Your task to perform on an android device: turn off notifications settings in the gmail app Image 0: 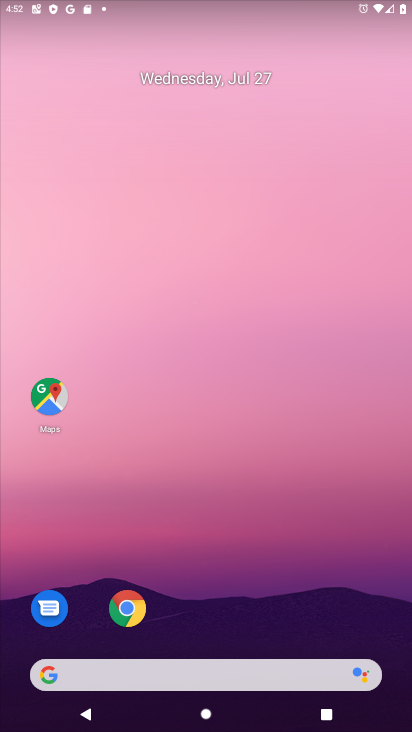
Step 0: drag from (200, 625) to (122, 89)
Your task to perform on an android device: turn off notifications settings in the gmail app Image 1: 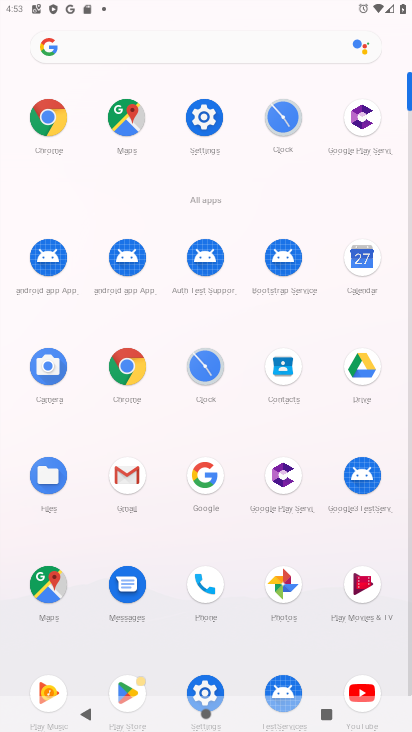
Step 1: click (125, 467)
Your task to perform on an android device: turn off notifications settings in the gmail app Image 2: 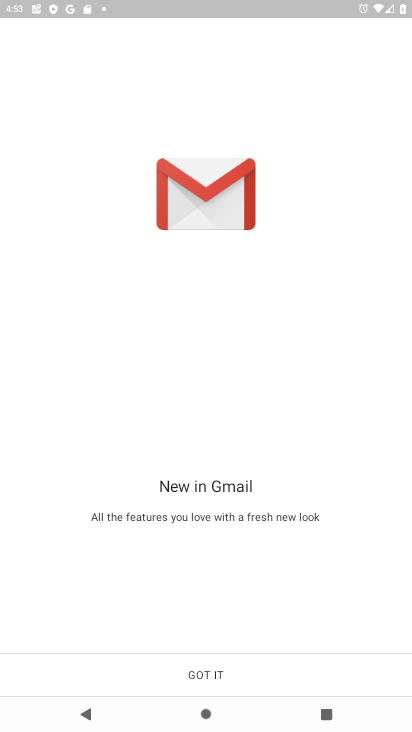
Step 2: click (154, 660)
Your task to perform on an android device: turn off notifications settings in the gmail app Image 3: 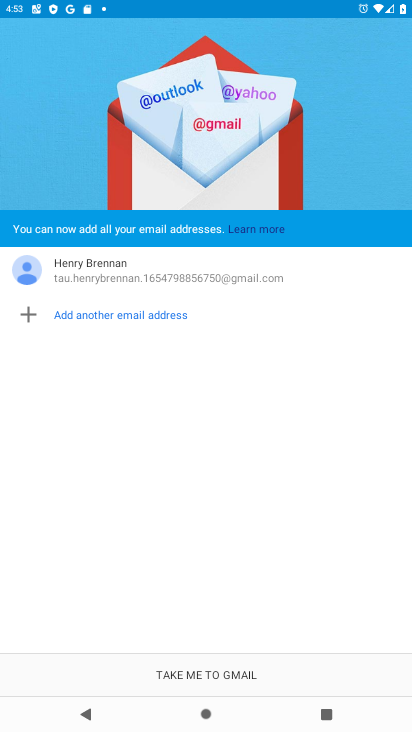
Step 3: click (197, 655)
Your task to perform on an android device: turn off notifications settings in the gmail app Image 4: 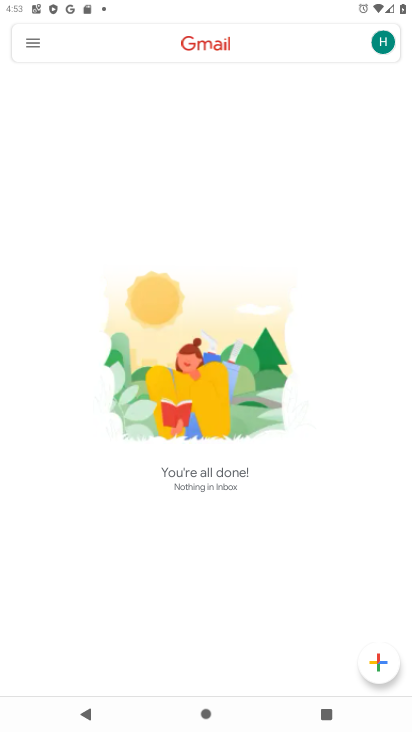
Step 4: click (38, 50)
Your task to perform on an android device: turn off notifications settings in the gmail app Image 5: 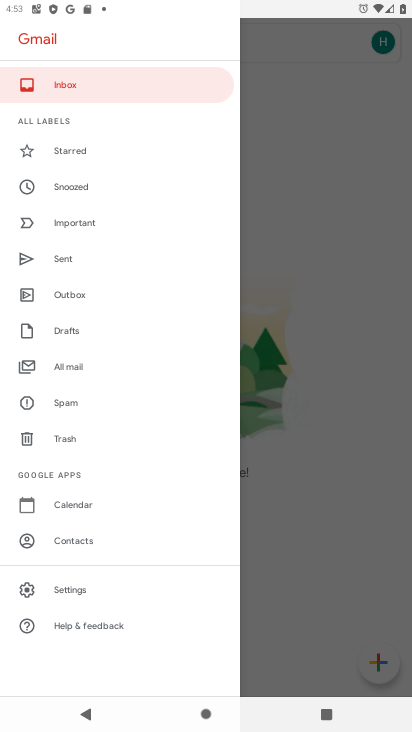
Step 5: click (65, 567)
Your task to perform on an android device: turn off notifications settings in the gmail app Image 6: 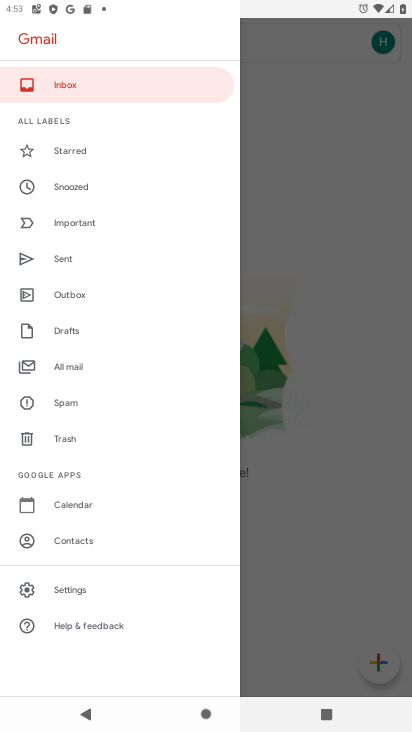
Step 6: click (50, 590)
Your task to perform on an android device: turn off notifications settings in the gmail app Image 7: 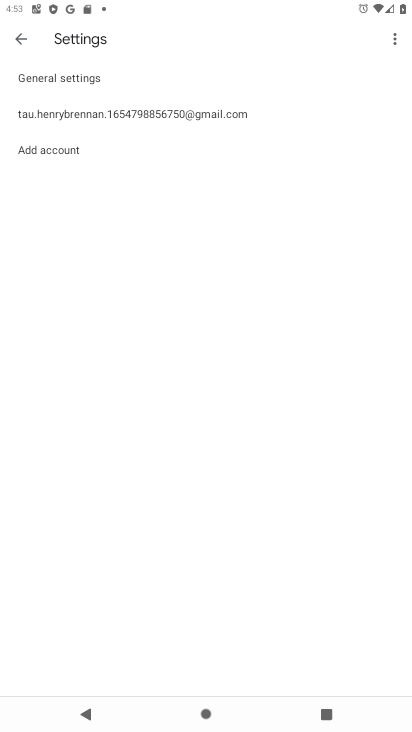
Step 7: click (57, 79)
Your task to perform on an android device: turn off notifications settings in the gmail app Image 8: 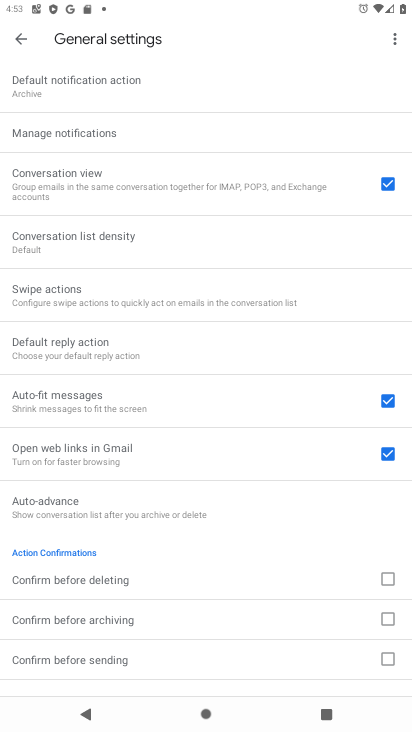
Step 8: click (122, 126)
Your task to perform on an android device: turn off notifications settings in the gmail app Image 9: 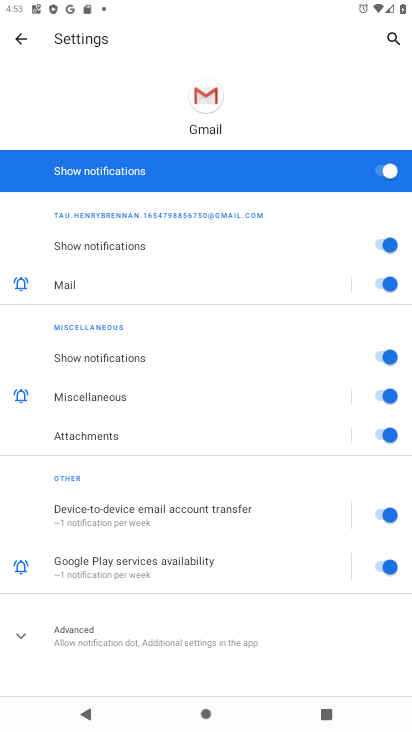
Step 9: click (378, 157)
Your task to perform on an android device: turn off notifications settings in the gmail app Image 10: 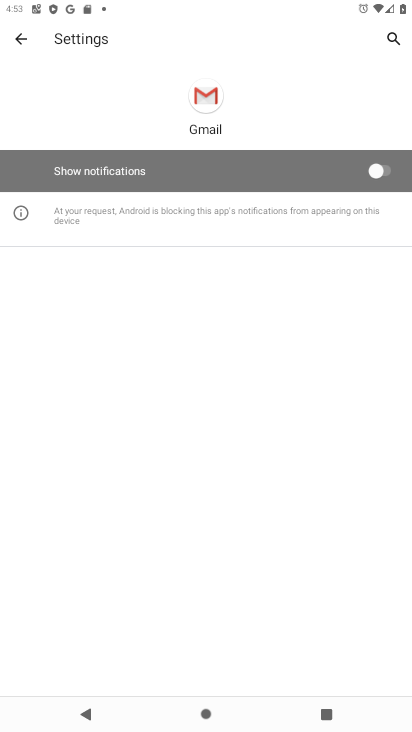
Step 10: task complete